Your task to perform on an android device: Open network settings Image 0: 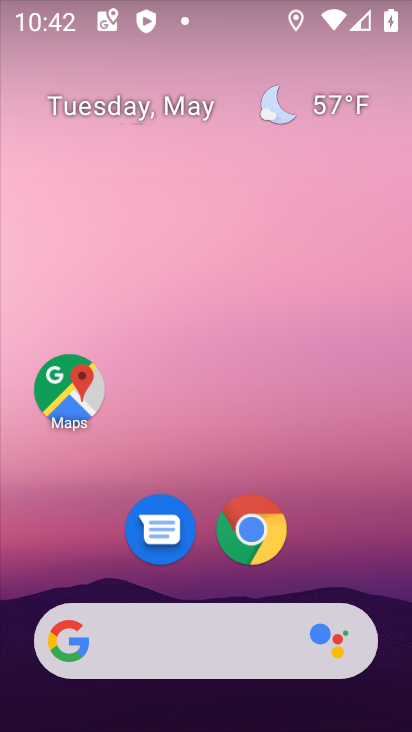
Step 0: drag from (216, 20) to (108, 625)
Your task to perform on an android device: Open network settings Image 1: 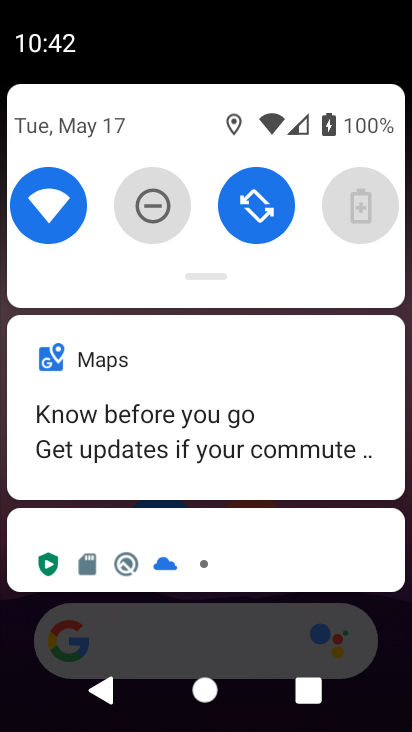
Step 1: drag from (207, 131) to (188, 718)
Your task to perform on an android device: Open network settings Image 2: 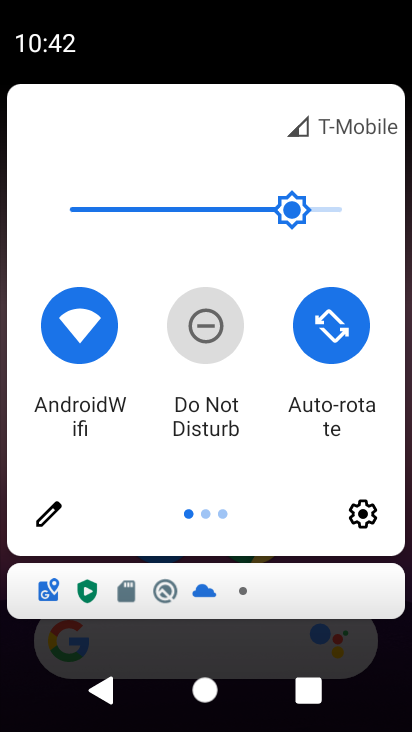
Step 2: drag from (365, 460) to (26, 473)
Your task to perform on an android device: Open network settings Image 3: 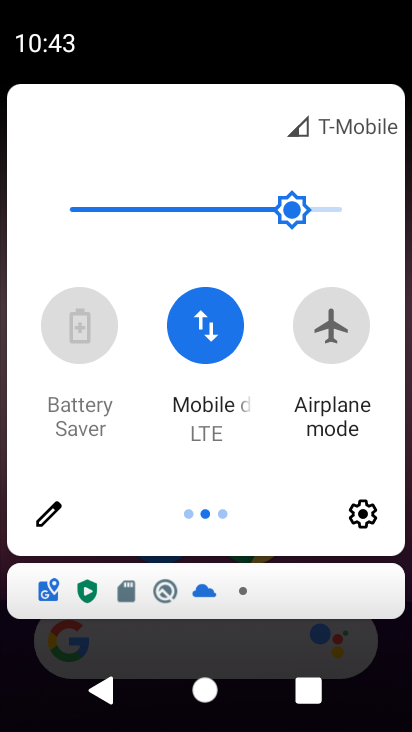
Step 3: click (189, 342)
Your task to perform on an android device: Open network settings Image 4: 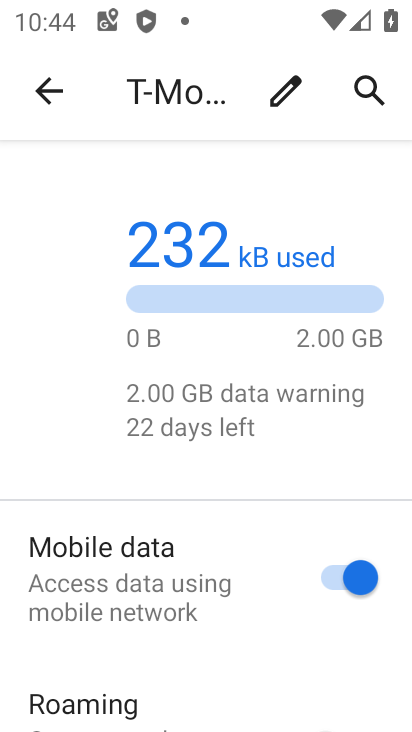
Step 4: task complete